Your task to perform on an android device: Show me productivity apps on the Play Store Image 0: 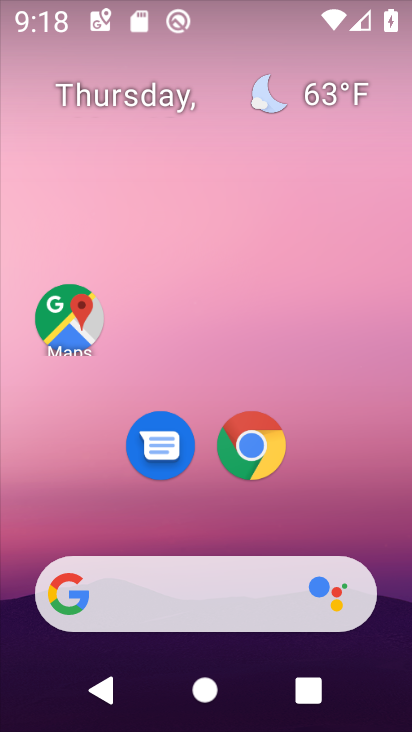
Step 0: drag from (300, 522) to (286, 236)
Your task to perform on an android device: Show me productivity apps on the Play Store Image 1: 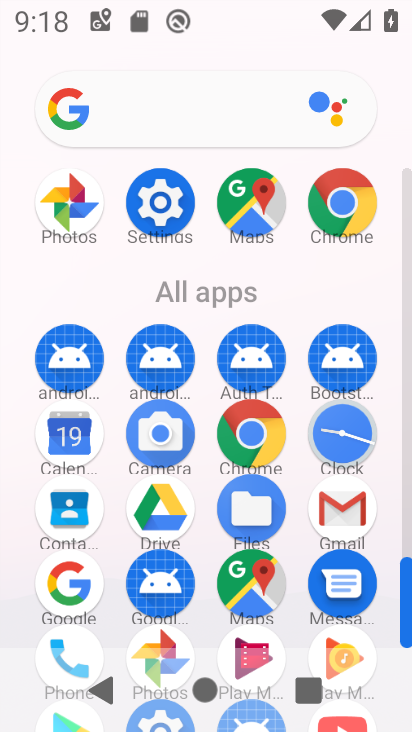
Step 1: drag from (138, 288) to (166, 98)
Your task to perform on an android device: Show me productivity apps on the Play Store Image 2: 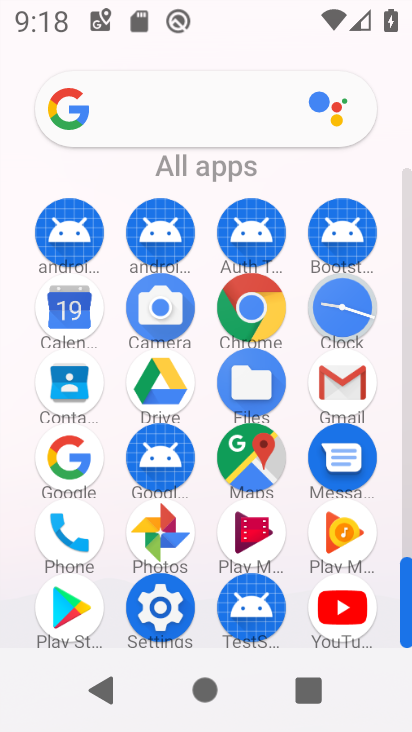
Step 2: click (97, 606)
Your task to perform on an android device: Show me productivity apps on the Play Store Image 3: 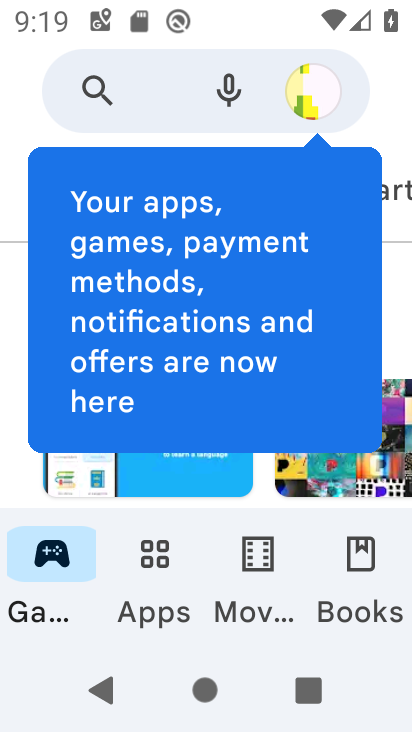
Step 3: click (386, 127)
Your task to perform on an android device: Show me productivity apps on the Play Store Image 4: 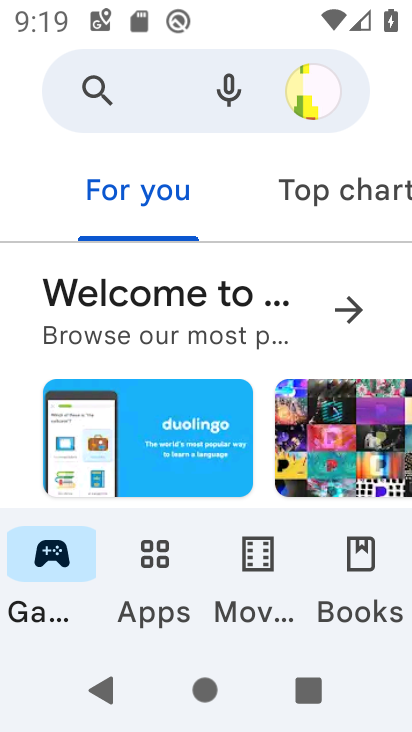
Step 4: drag from (271, 321) to (294, 108)
Your task to perform on an android device: Show me productivity apps on the Play Store Image 5: 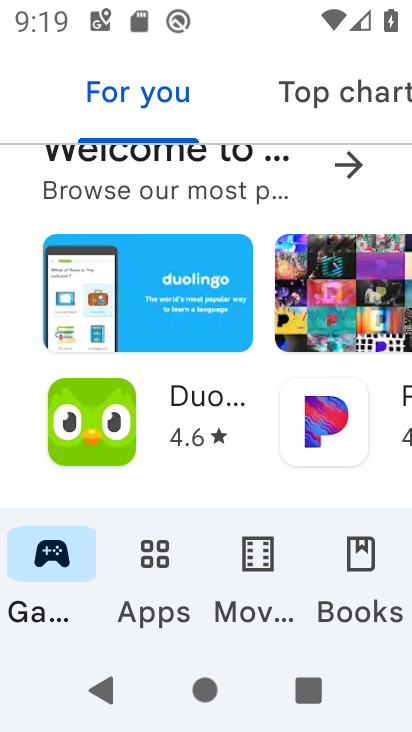
Step 5: drag from (214, 416) to (302, 116)
Your task to perform on an android device: Show me productivity apps on the Play Store Image 6: 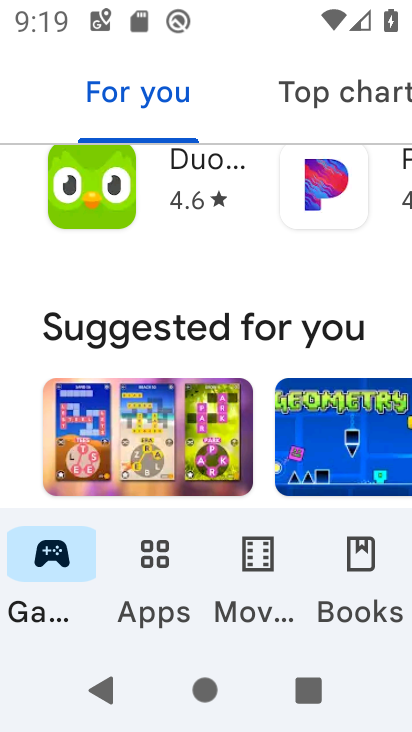
Step 6: drag from (225, 407) to (252, 151)
Your task to perform on an android device: Show me productivity apps on the Play Store Image 7: 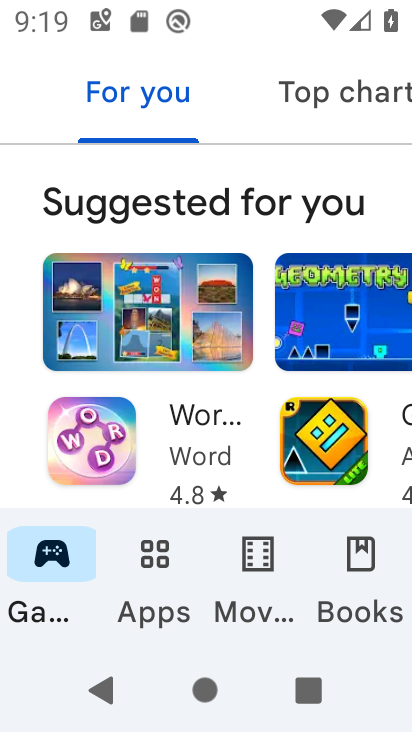
Step 7: drag from (203, 500) to (246, 159)
Your task to perform on an android device: Show me productivity apps on the Play Store Image 8: 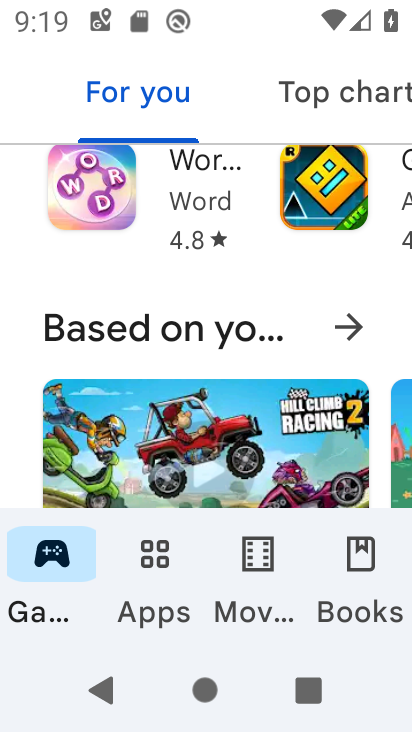
Step 8: drag from (245, 413) to (308, 99)
Your task to perform on an android device: Show me productivity apps on the Play Store Image 9: 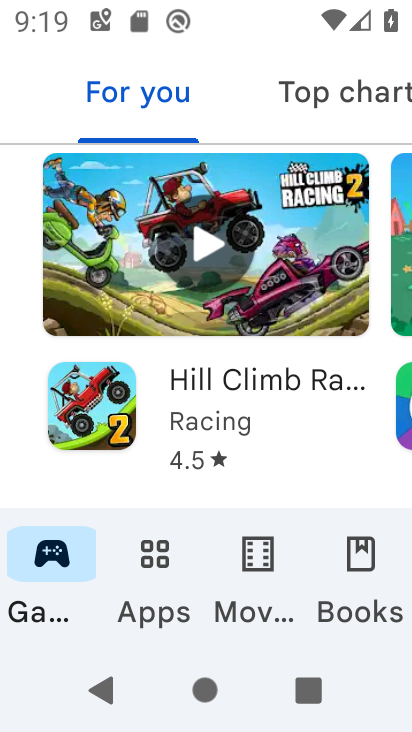
Step 9: drag from (272, 395) to (357, 80)
Your task to perform on an android device: Show me productivity apps on the Play Store Image 10: 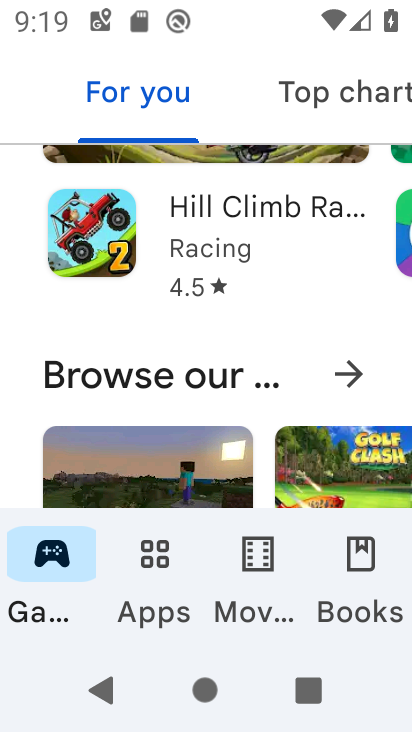
Step 10: drag from (262, 398) to (324, 90)
Your task to perform on an android device: Show me productivity apps on the Play Store Image 11: 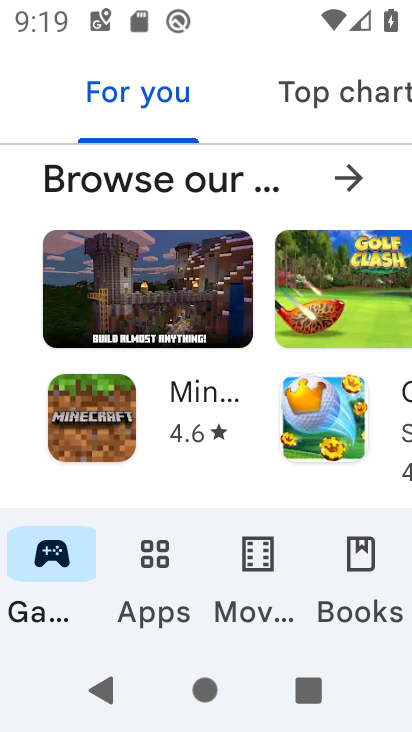
Step 11: drag from (234, 470) to (316, 112)
Your task to perform on an android device: Show me productivity apps on the Play Store Image 12: 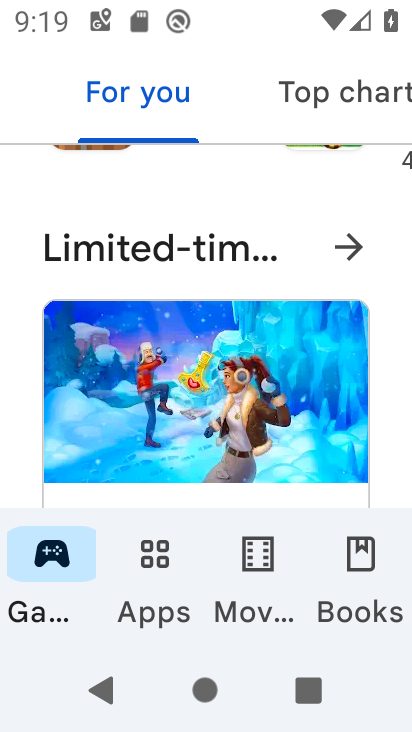
Step 12: drag from (223, 388) to (269, 118)
Your task to perform on an android device: Show me productivity apps on the Play Store Image 13: 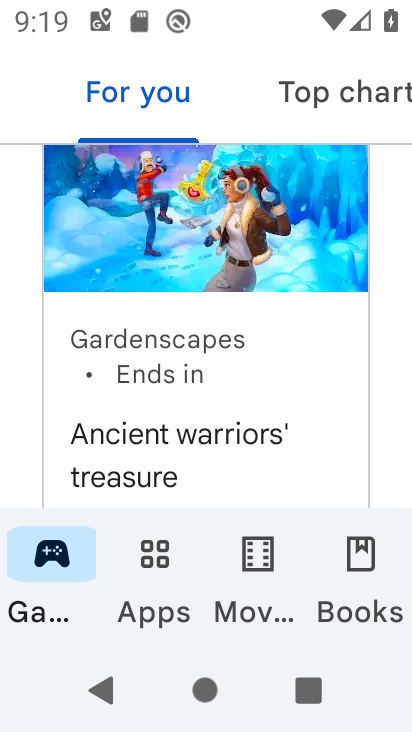
Step 13: drag from (171, 445) to (234, 157)
Your task to perform on an android device: Show me productivity apps on the Play Store Image 14: 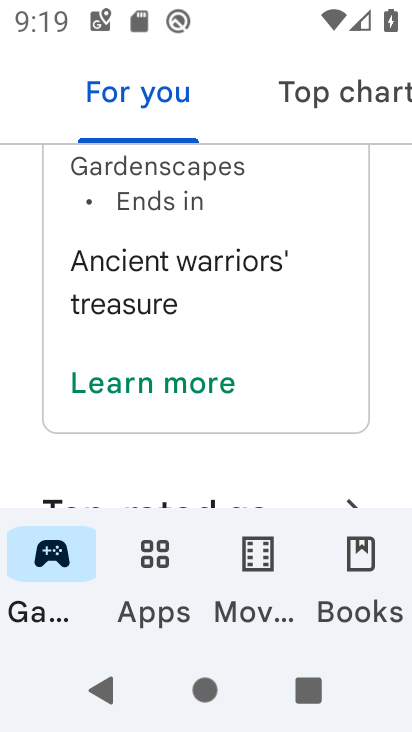
Step 14: drag from (217, 439) to (233, 85)
Your task to perform on an android device: Show me productivity apps on the Play Store Image 15: 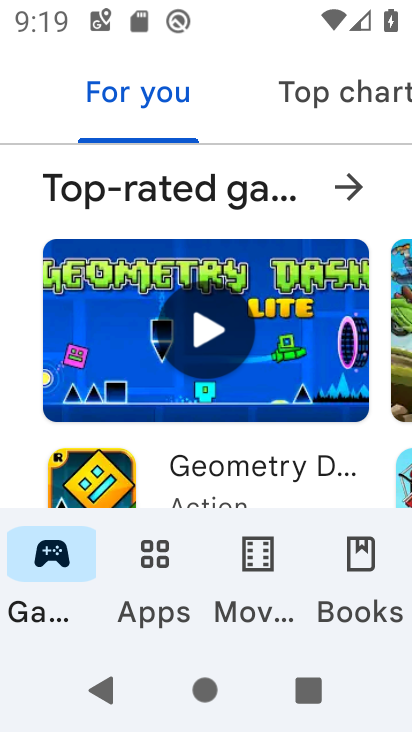
Step 15: drag from (210, 342) to (214, 62)
Your task to perform on an android device: Show me productivity apps on the Play Store Image 16: 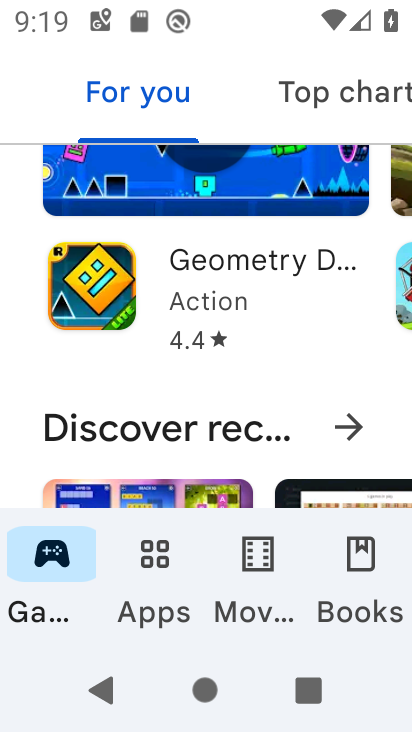
Step 16: drag from (221, 406) to (271, 21)
Your task to perform on an android device: Show me productivity apps on the Play Store Image 17: 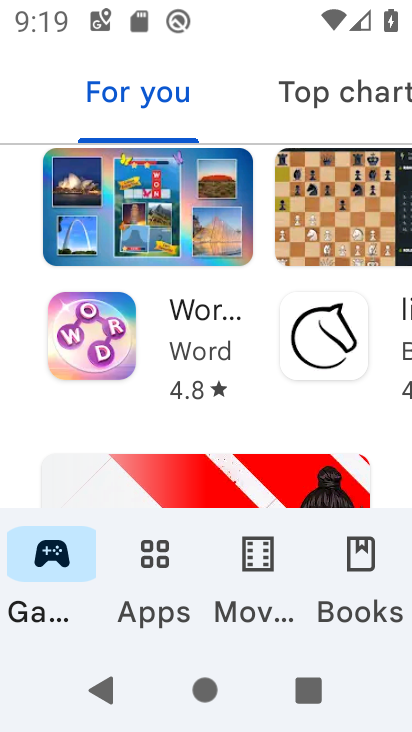
Step 17: drag from (289, 405) to (297, 159)
Your task to perform on an android device: Show me productivity apps on the Play Store Image 18: 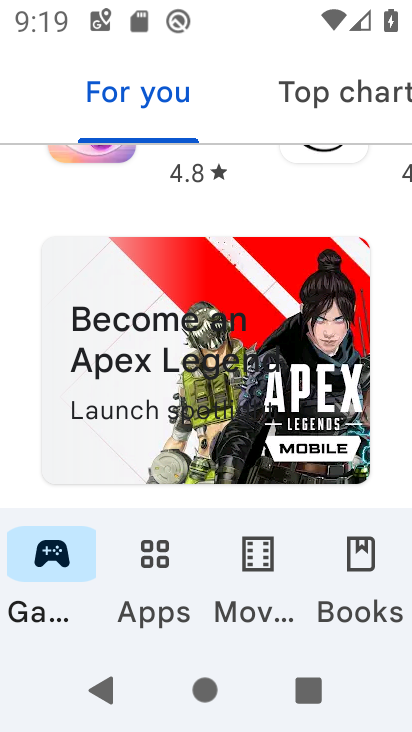
Step 18: drag from (268, 442) to (278, 129)
Your task to perform on an android device: Show me productivity apps on the Play Store Image 19: 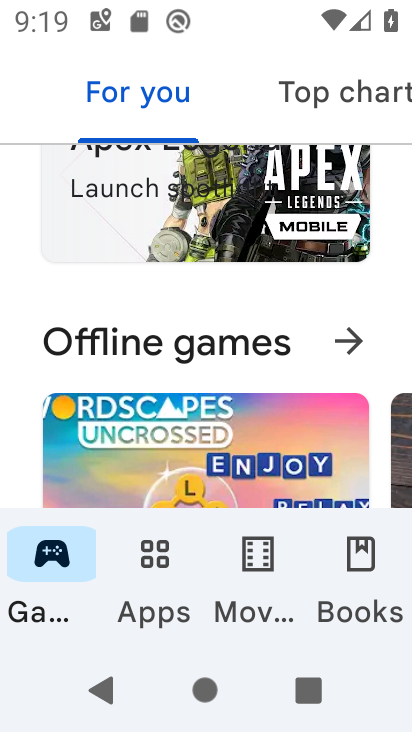
Step 19: drag from (243, 389) to (230, 27)
Your task to perform on an android device: Show me productivity apps on the Play Store Image 20: 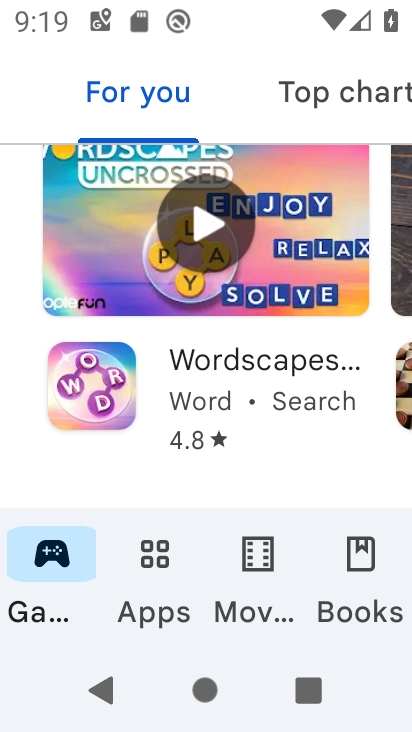
Step 20: drag from (205, 361) to (204, 33)
Your task to perform on an android device: Show me productivity apps on the Play Store Image 21: 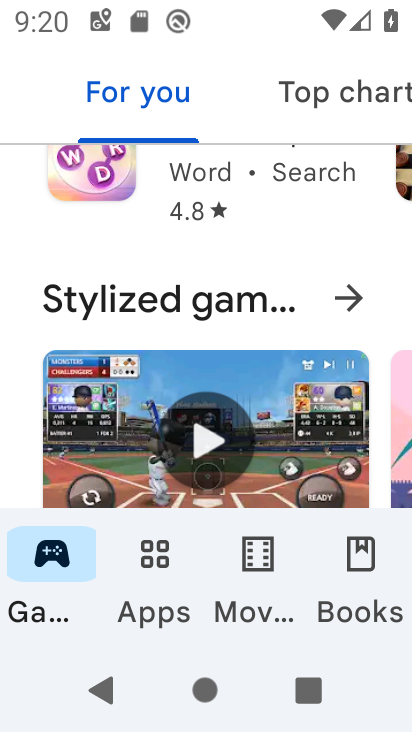
Step 21: drag from (210, 344) to (198, 16)
Your task to perform on an android device: Show me productivity apps on the Play Store Image 22: 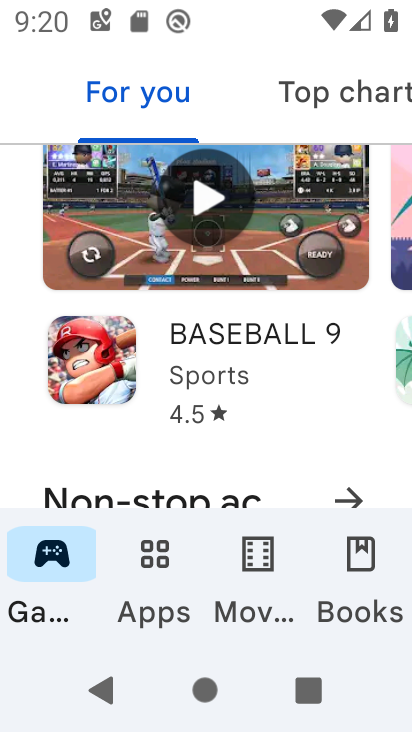
Step 22: drag from (237, 386) to (280, 7)
Your task to perform on an android device: Show me productivity apps on the Play Store Image 23: 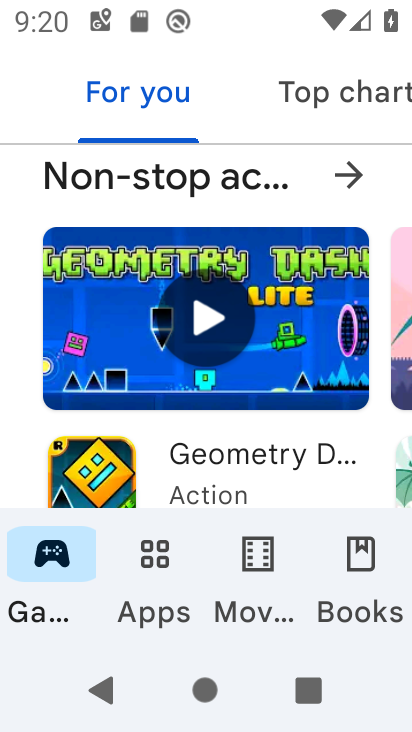
Step 23: drag from (255, 453) to (260, 89)
Your task to perform on an android device: Show me productivity apps on the Play Store Image 24: 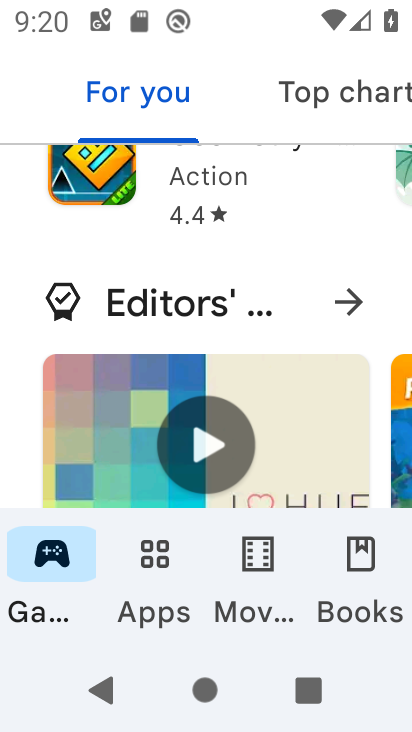
Step 24: click (152, 557)
Your task to perform on an android device: Show me productivity apps on the Play Store Image 25: 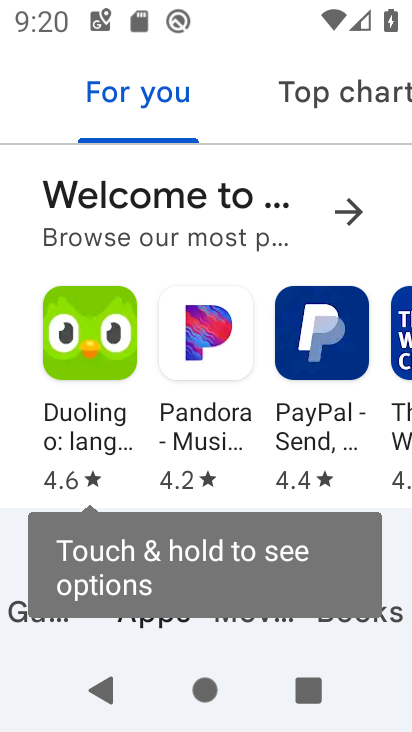
Step 25: task complete